Your task to perform on an android device: Go to privacy settings Image 0: 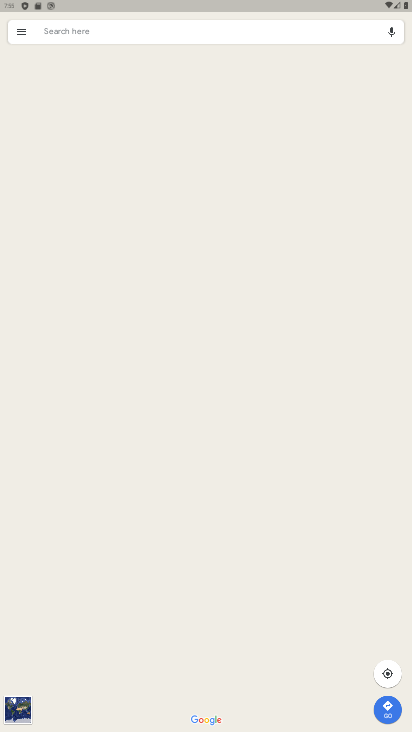
Step 0: drag from (283, 568) to (239, 19)
Your task to perform on an android device: Go to privacy settings Image 1: 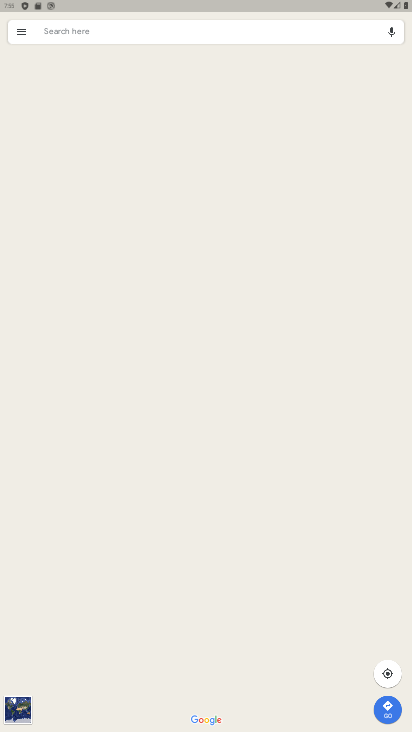
Step 1: press home button
Your task to perform on an android device: Go to privacy settings Image 2: 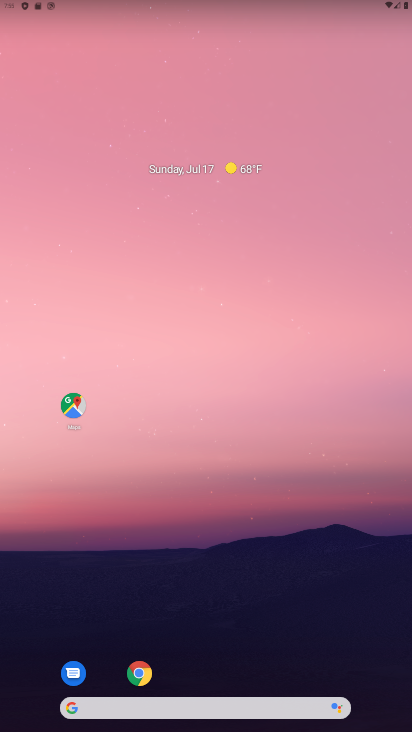
Step 2: click (128, 484)
Your task to perform on an android device: Go to privacy settings Image 3: 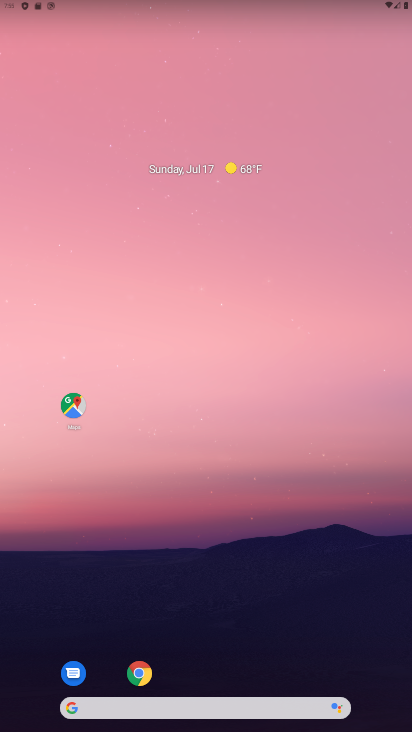
Step 3: drag from (220, 519) to (39, 0)
Your task to perform on an android device: Go to privacy settings Image 4: 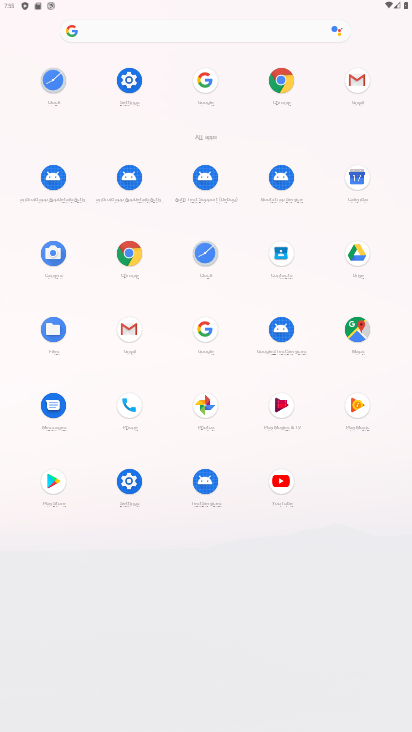
Step 4: click (111, 389)
Your task to perform on an android device: Go to privacy settings Image 5: 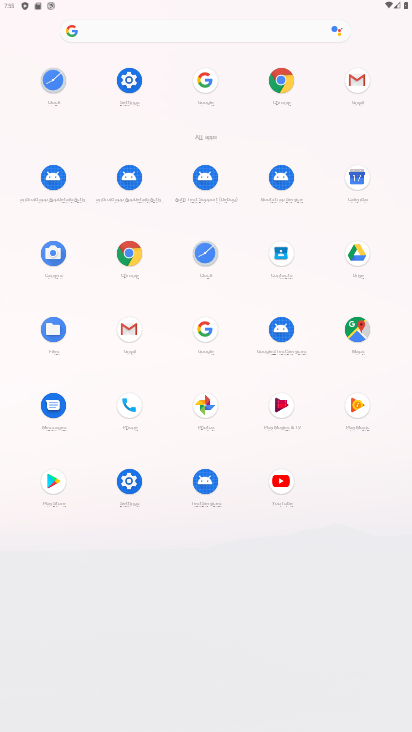
Step 5: click (118, 87)
Your task to perform on an android device: Go to privacy settings Image 6: 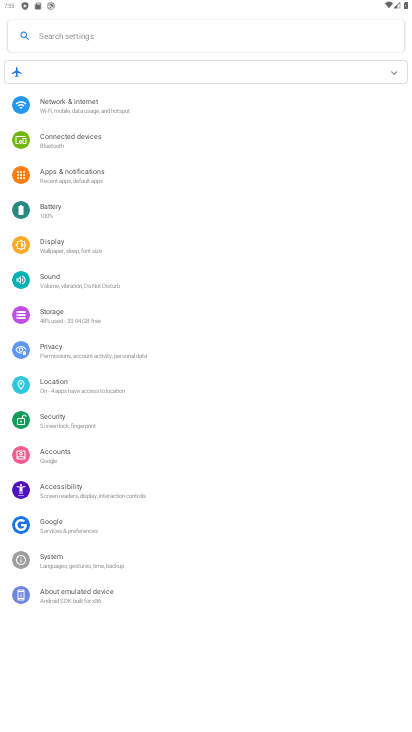
Step 6: task complete
Your task to perform on an android device: Go to privacy settings Image 7: 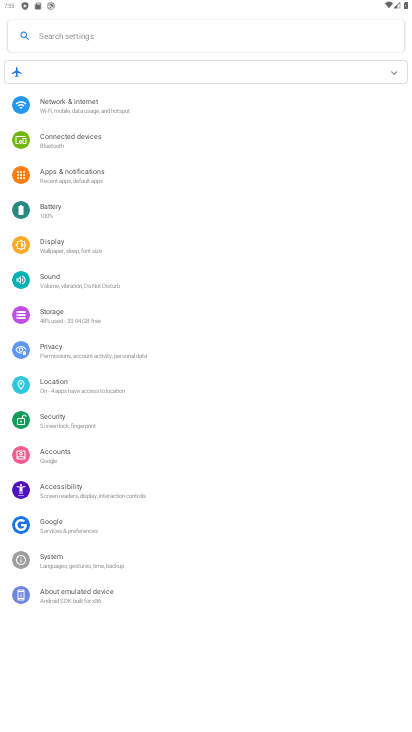
Step 7: click (28, 350)
Your task to perform on an android device: Go to privacy settings Image 8: 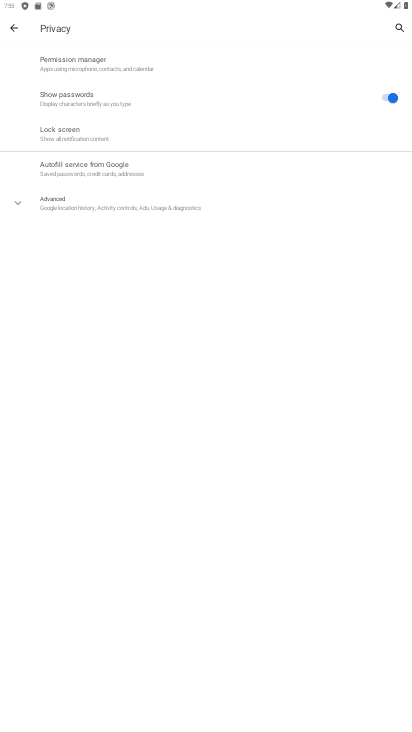
Step 8: task complete